Your task to perform on an android device: What's the weather? Image 0: 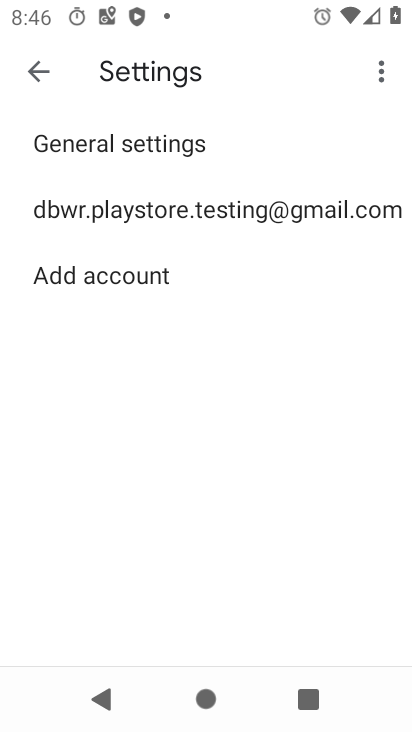
Step 0: press back button
Your task to perform on an android device: What's the weather? Image 1: 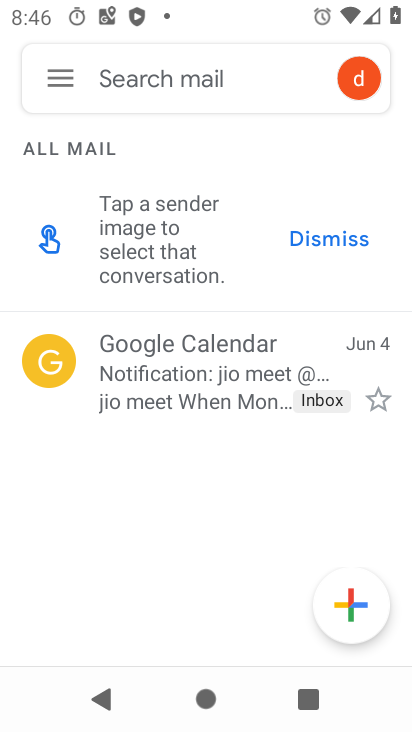
Step 1: press back button
Your task to perform on an android device: What's the weather? Image 2: 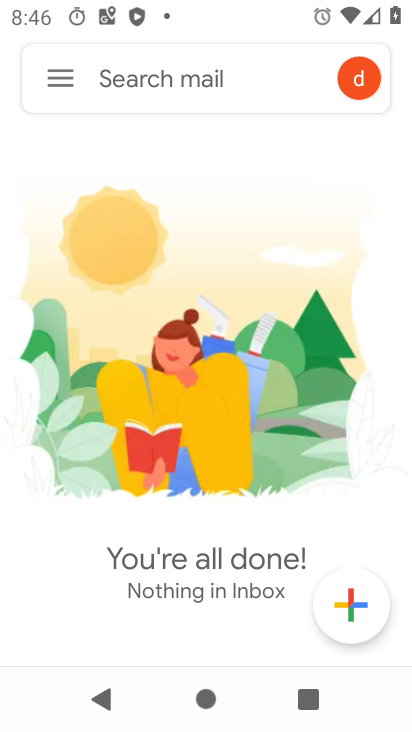
Step 2: press home button
Your task to perform on an android device: What's the weather? Image 3: 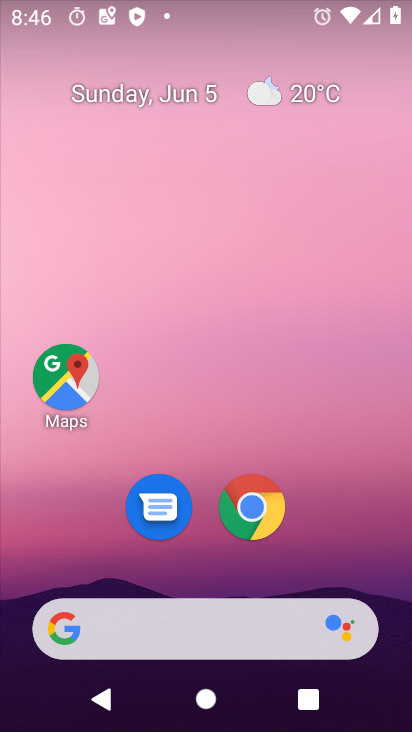
Step 3: drag from (323, 564) to (252, 38)
Your task to perform on an android device: What's the weather? Image 4: 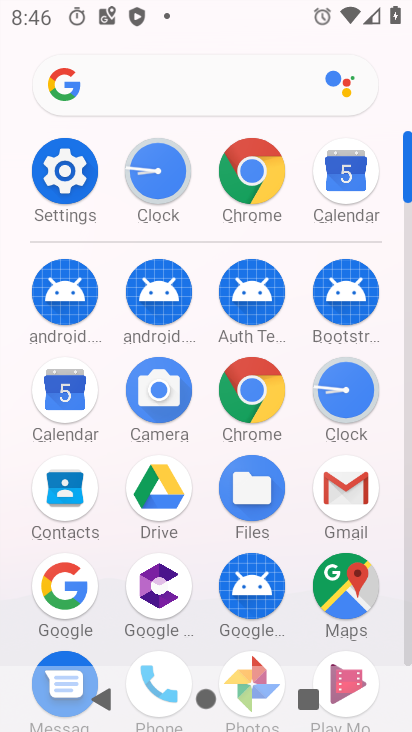
Step 4: click (255, 173)
Your task to perform on an android device: What's the weather? Image 5: 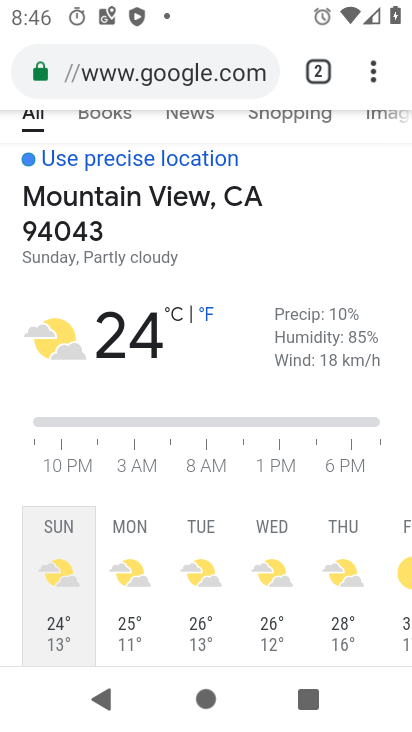
Step 5: task complete